Your task to perform on an android device: Open settings on Google Maps Image 0: 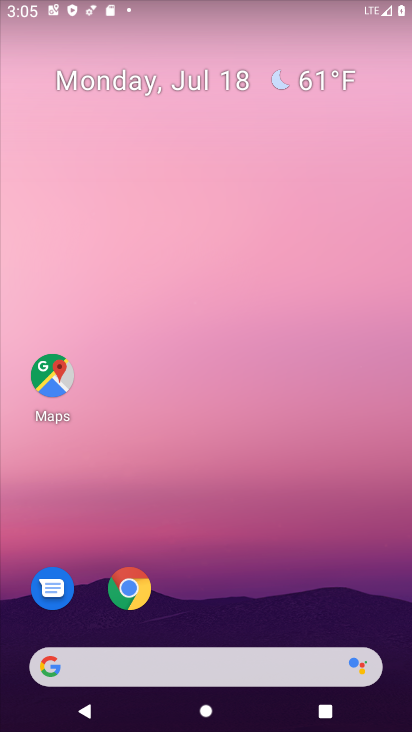
Step 0: click (27, 404)
Your task to perform on an android device: Open settings on Google Maps Image 1: 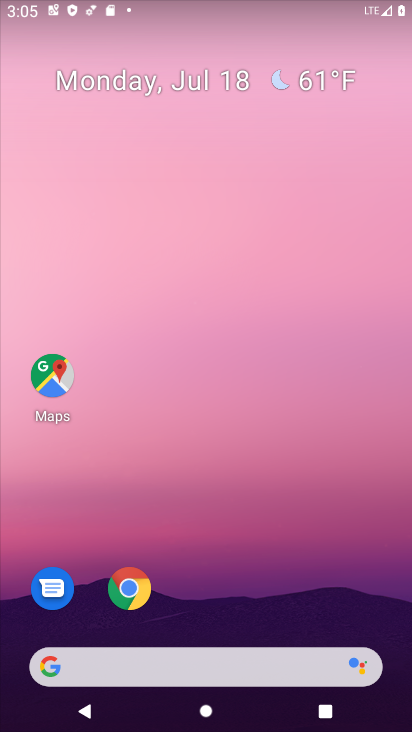
Step 1: click (57, 389)
Your task to perform on an android device: Open settings on Google Maps Image 2: 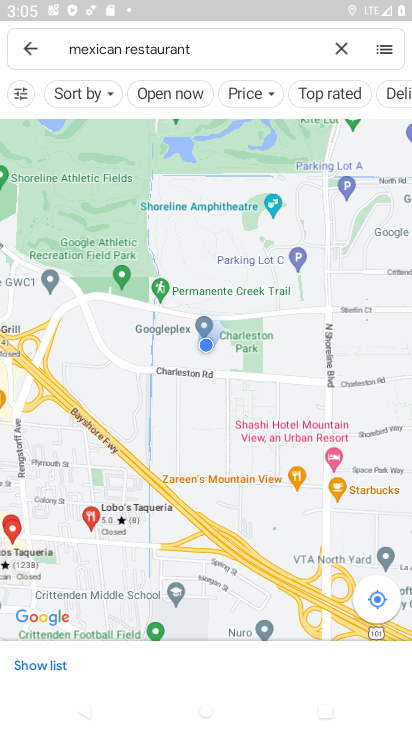
Step 2: click (41, 56)
Your task to perform on an android device: Open settings on Google Maps Image 3: 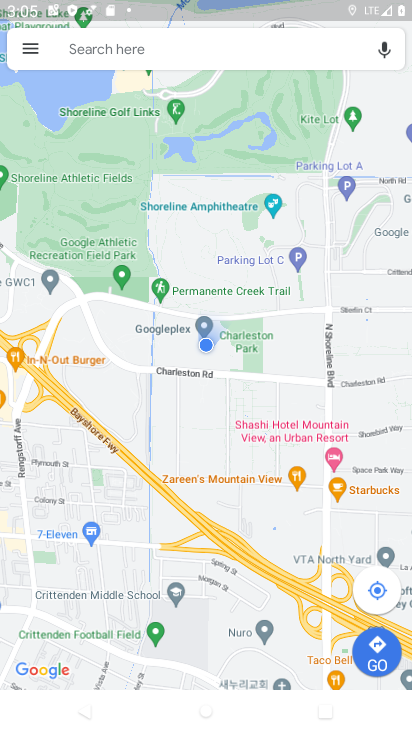
Step 3: click (41, 56)
Your task to perform on an android device: Open settings on Google Maps Image 4: 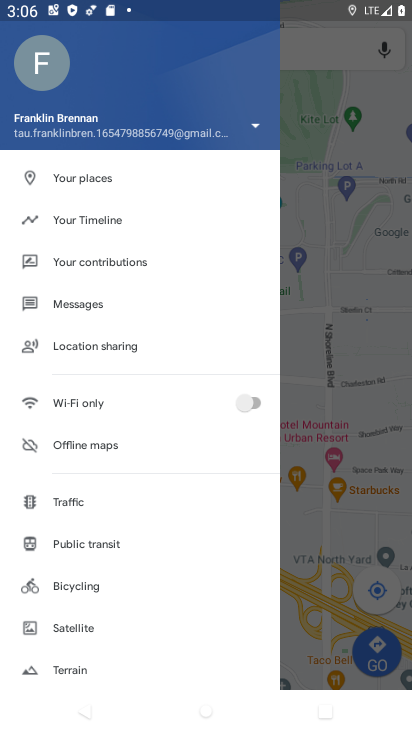
Step 4: task complete